Your task to perform on an android device: Add "alienware aurora" to the cart on amazon, then select checkout. Image 0: 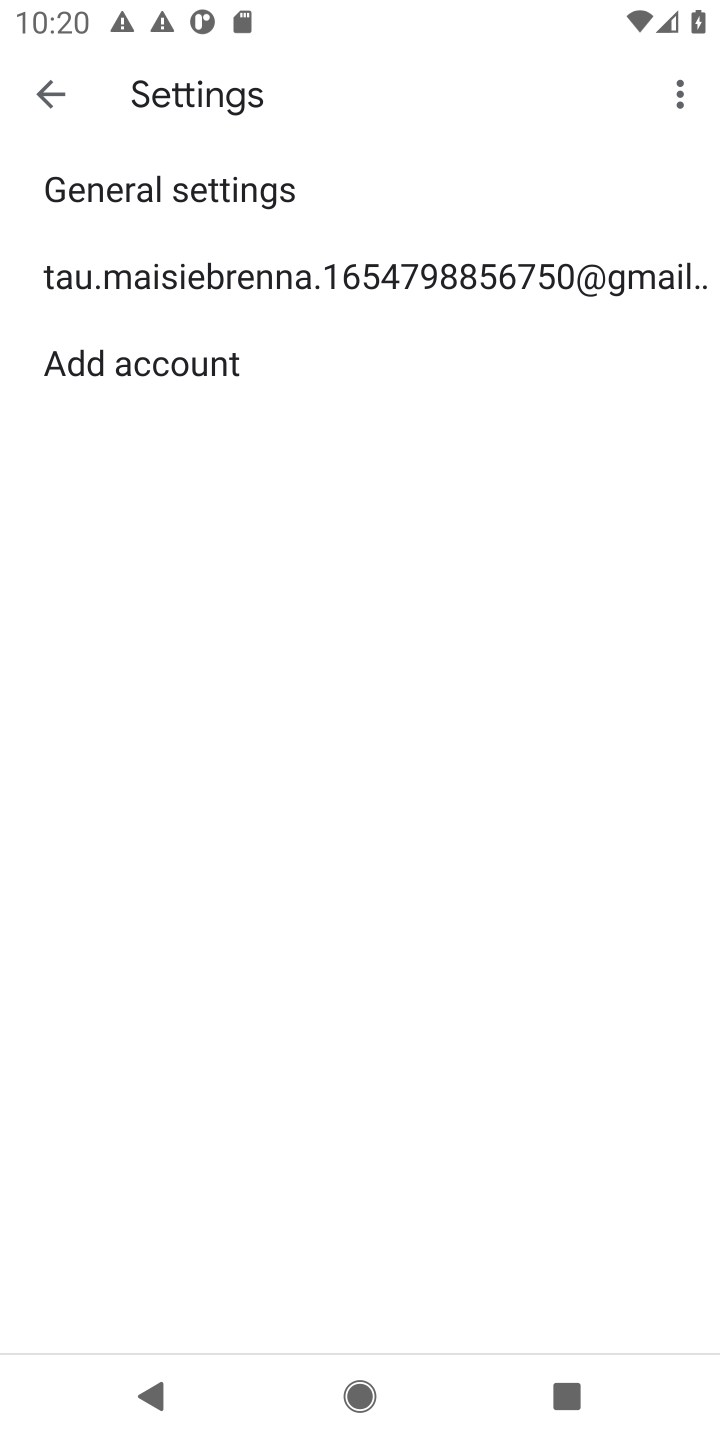
Step 0: press home button
Your task to perform on an android device: Add "alienware aurora" to the cart on amazon, then select checkout. Image 1: 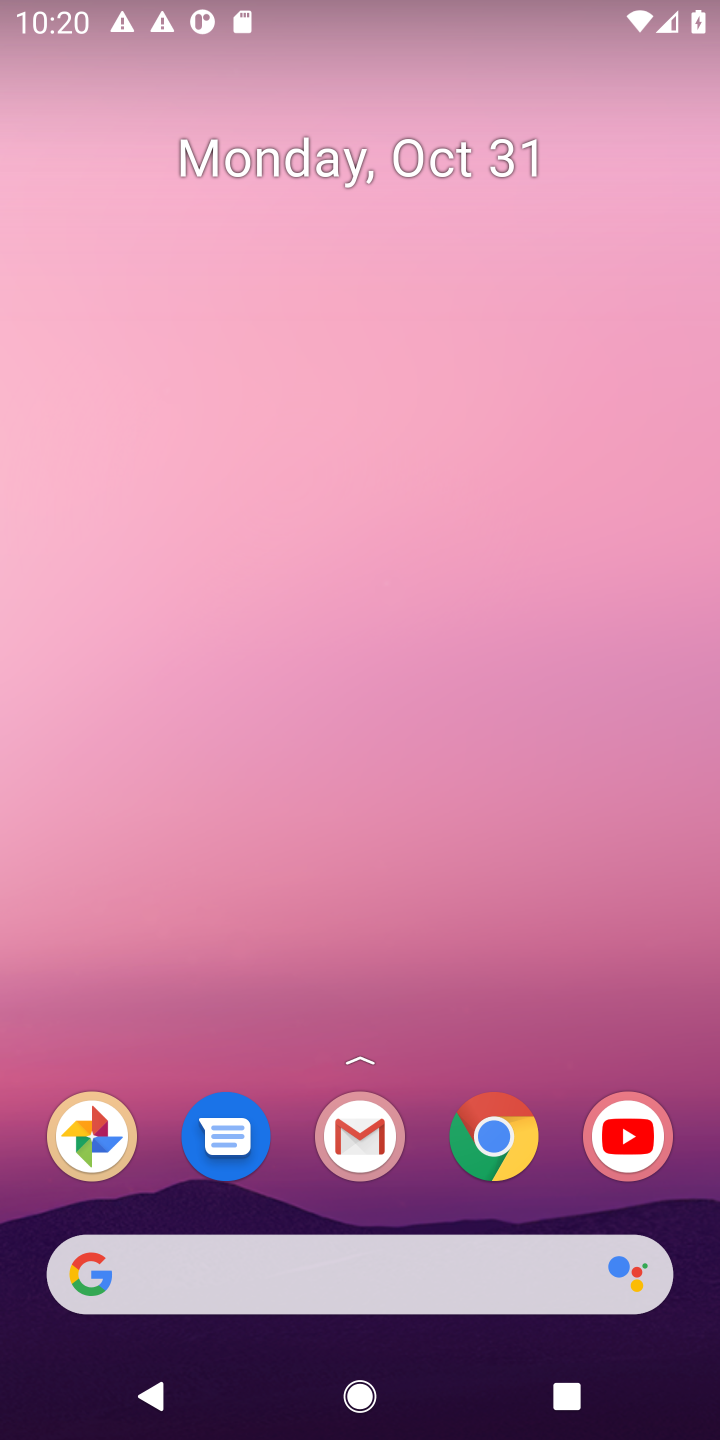
Step 1: click (134, 1277)
Your task to perform on an android device: Add "alienware aurora" to the cart on amazon, then select checkout. Image 2: 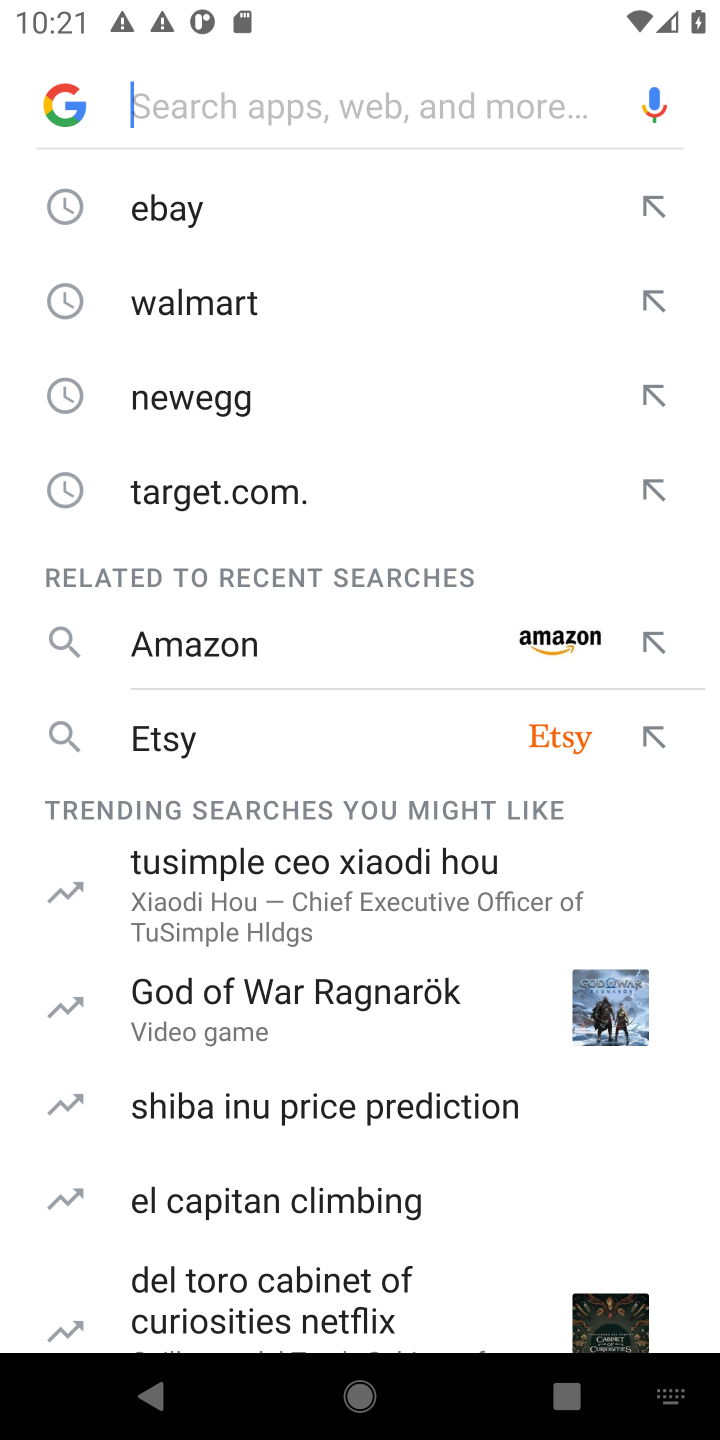
Step 2: type "amazon"
Your task to perform on an android device: Add "alienware aurora" to the cart on amazon, then select checkout. Image 3: 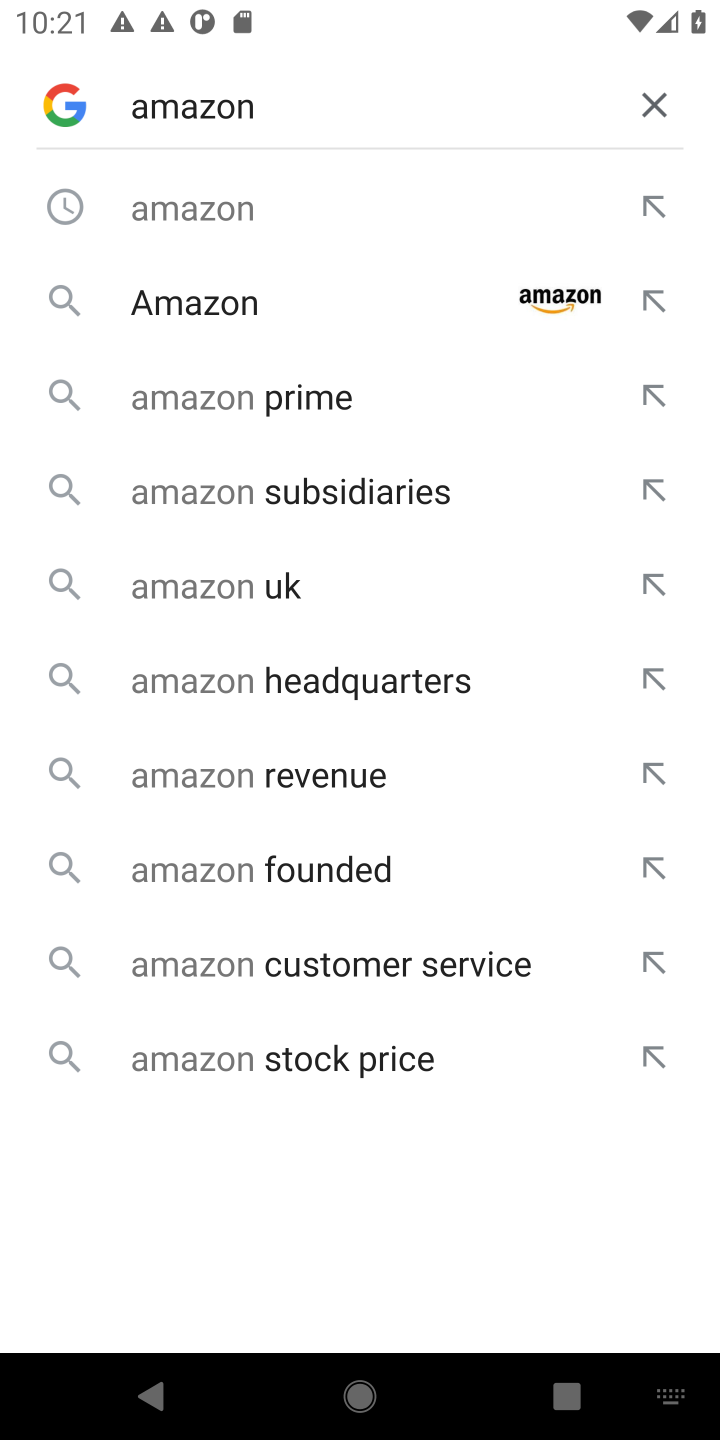
Step 3: press enter
Your task to perform on an android device: Add "alienware aurora" to the cart on amazon, then select checkout. Image 4: 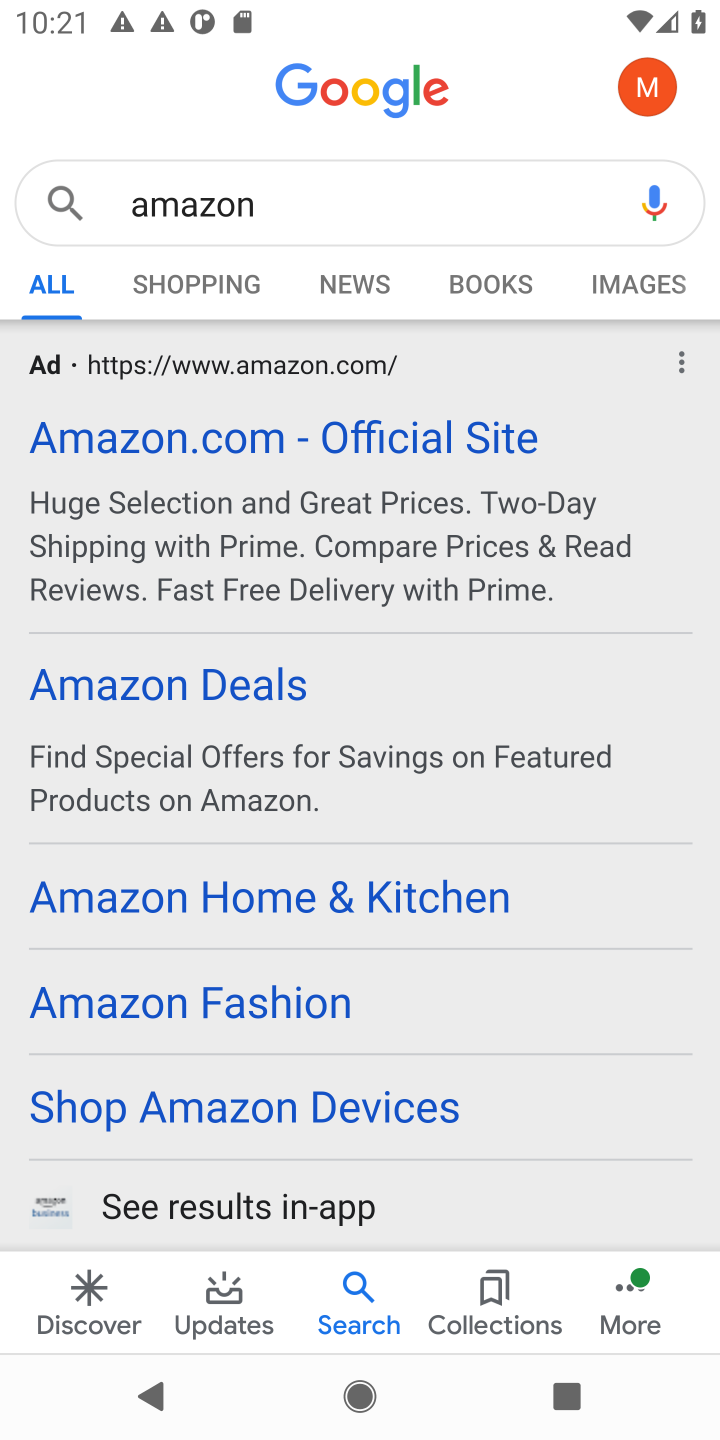
Step 4: click (246, 434)
Your task to perform on an android device: Add "alienware aurora" to the cart on amazon, then select checkout. Image 5: 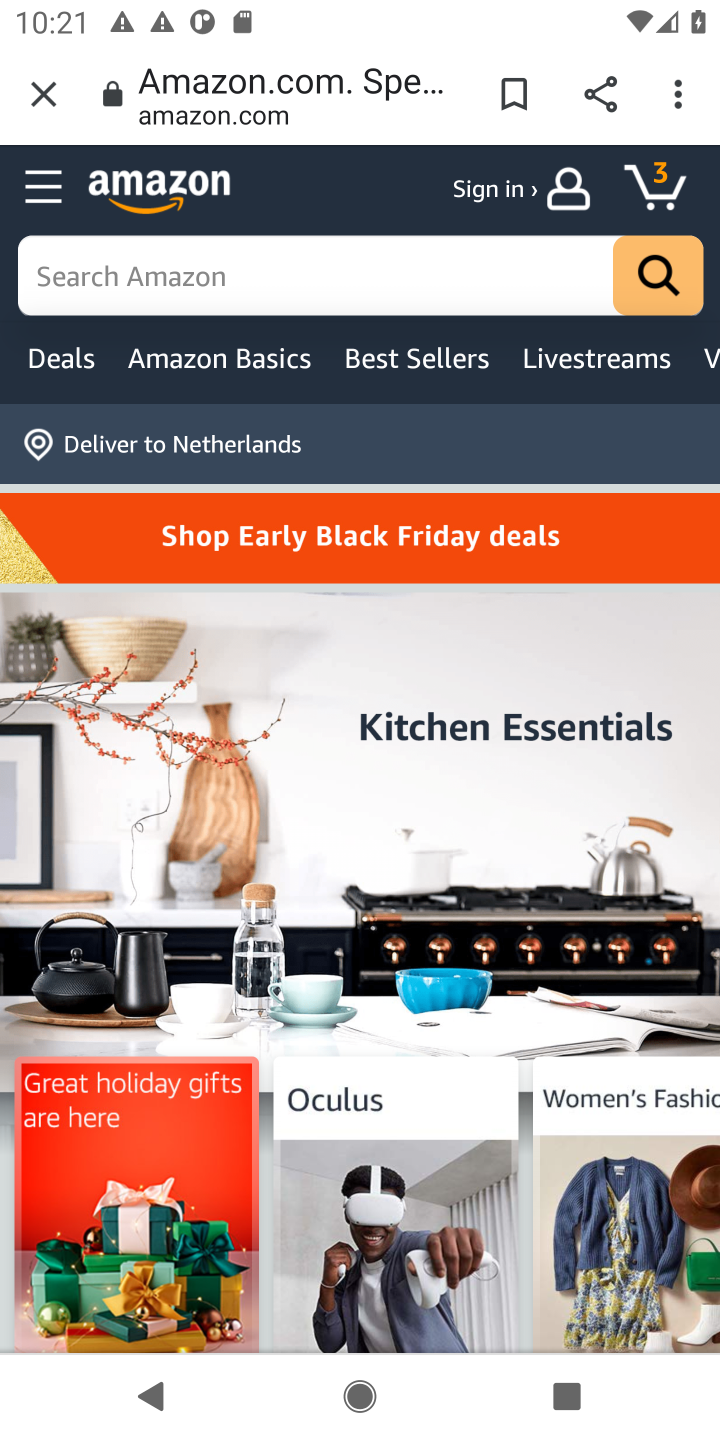
Step 5: click (248, 258)
Your task to perform on an android device: Add "alienware aurora" to the cart on amazon, then select checkout. Image 6: 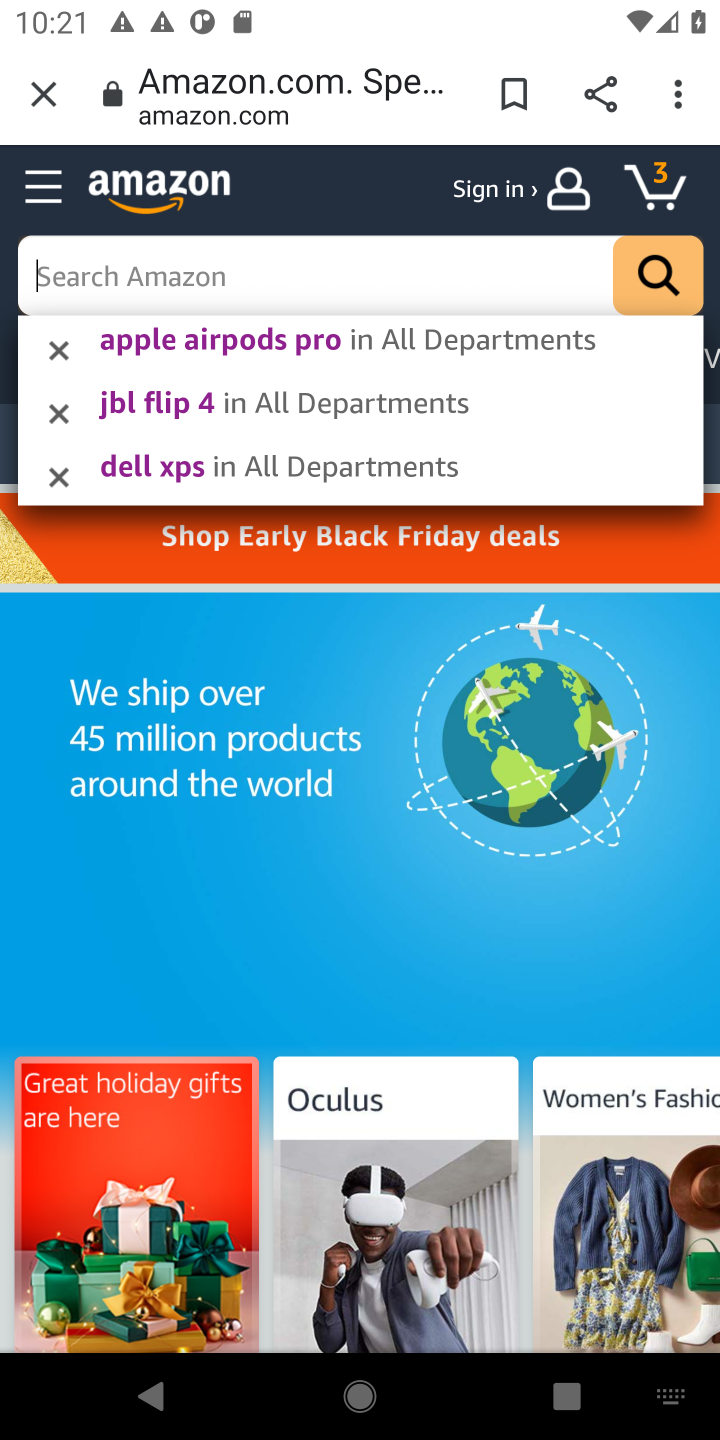
Step 6: type "alienware aurora"
Your task to perform on an android device: Add "alienware aurora" to the cart on amazon, then select checkout. Image 7: 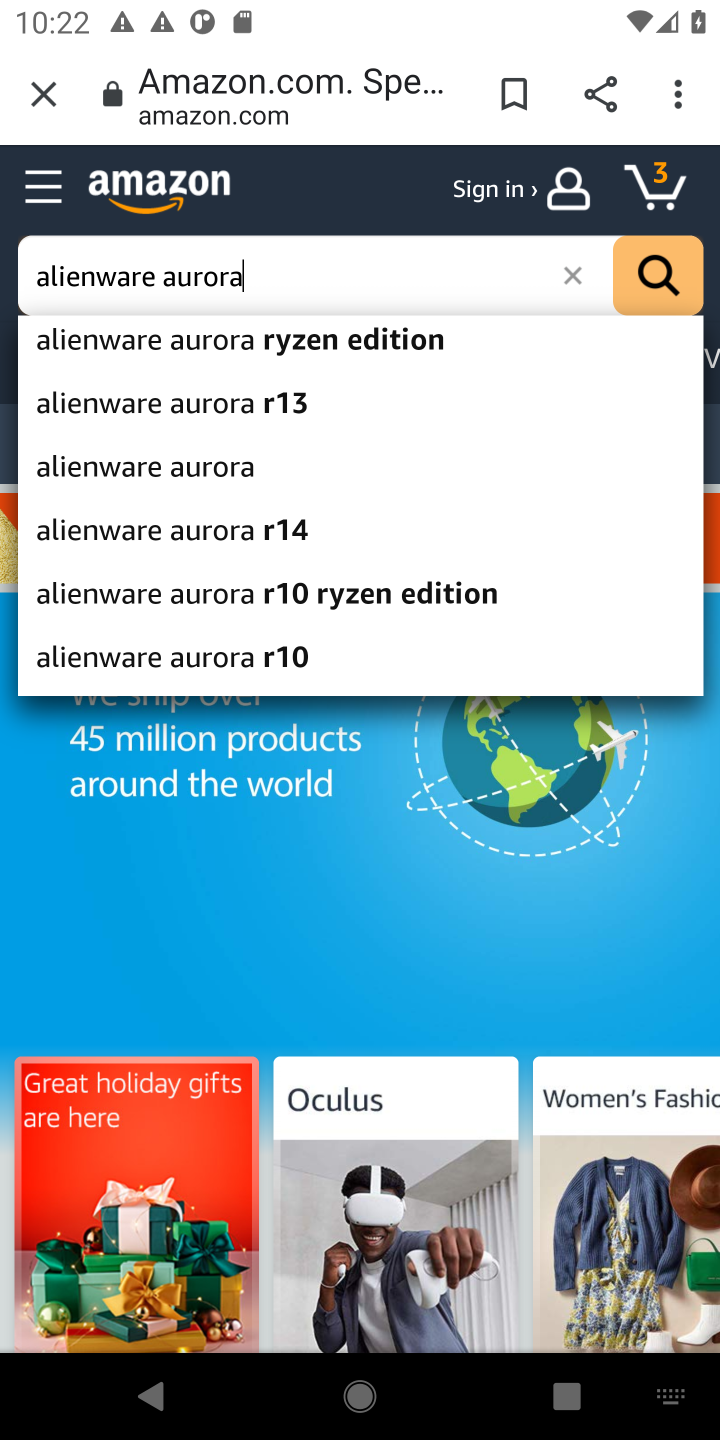
Step 7: click (649, 258)
Your task to perform on an android device: Add "alienware aurora" to the cart on amazon, then select checkout. Image 8: 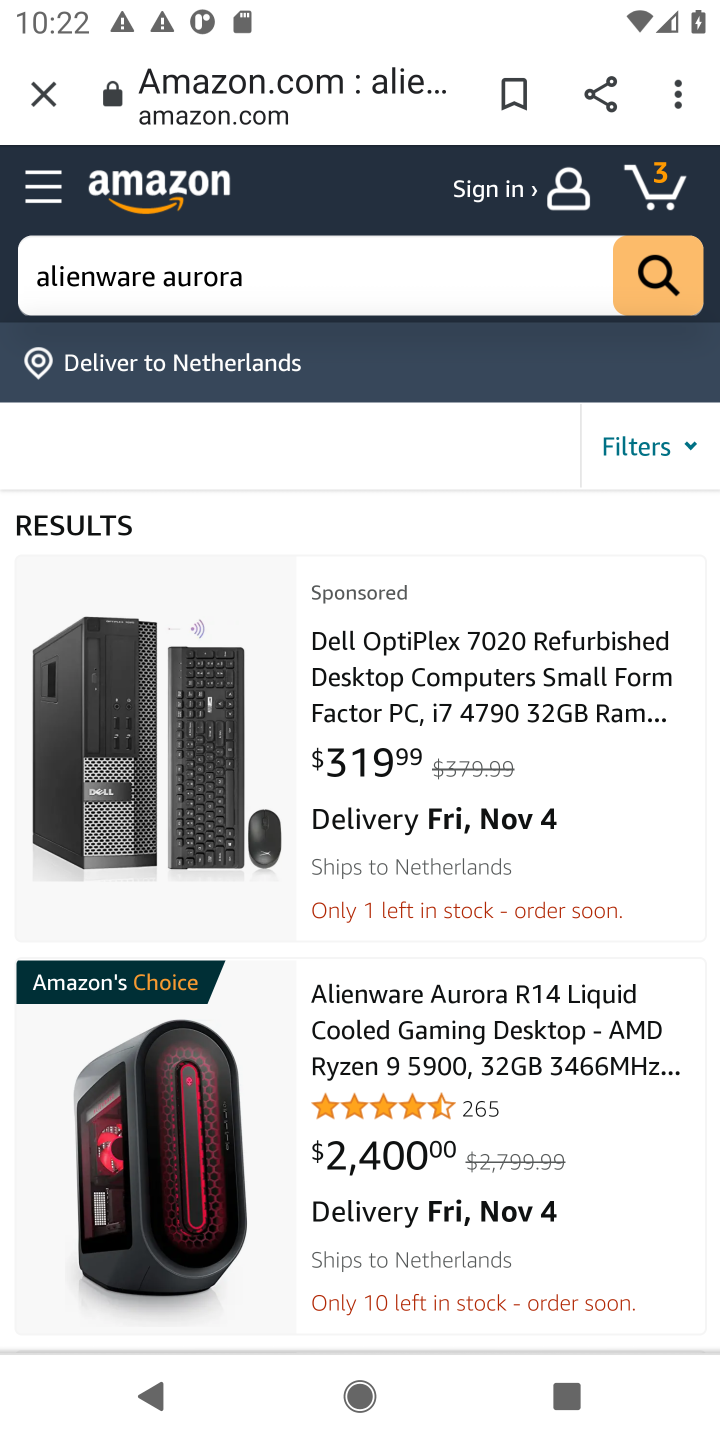
Step 8: click (476, 1008)
Your task to perform on an android device: Add "alienware aurora" to the cart on amazon, then select checkout. Image 9: 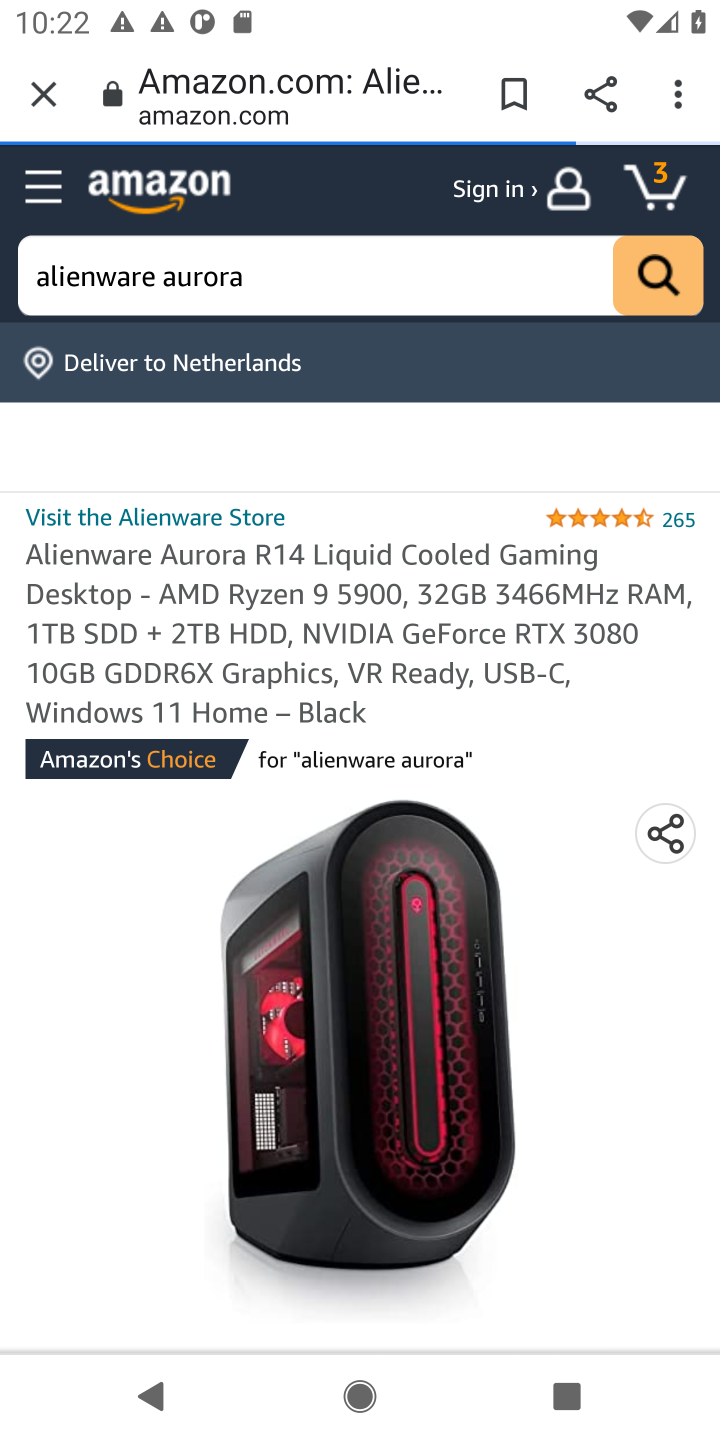
Step 9: drag from (413, 1028) to (409, 582)
Your task to perform on an android device: Add "alienware aurora" to the cart on amazon, then select checkout. Image 10: 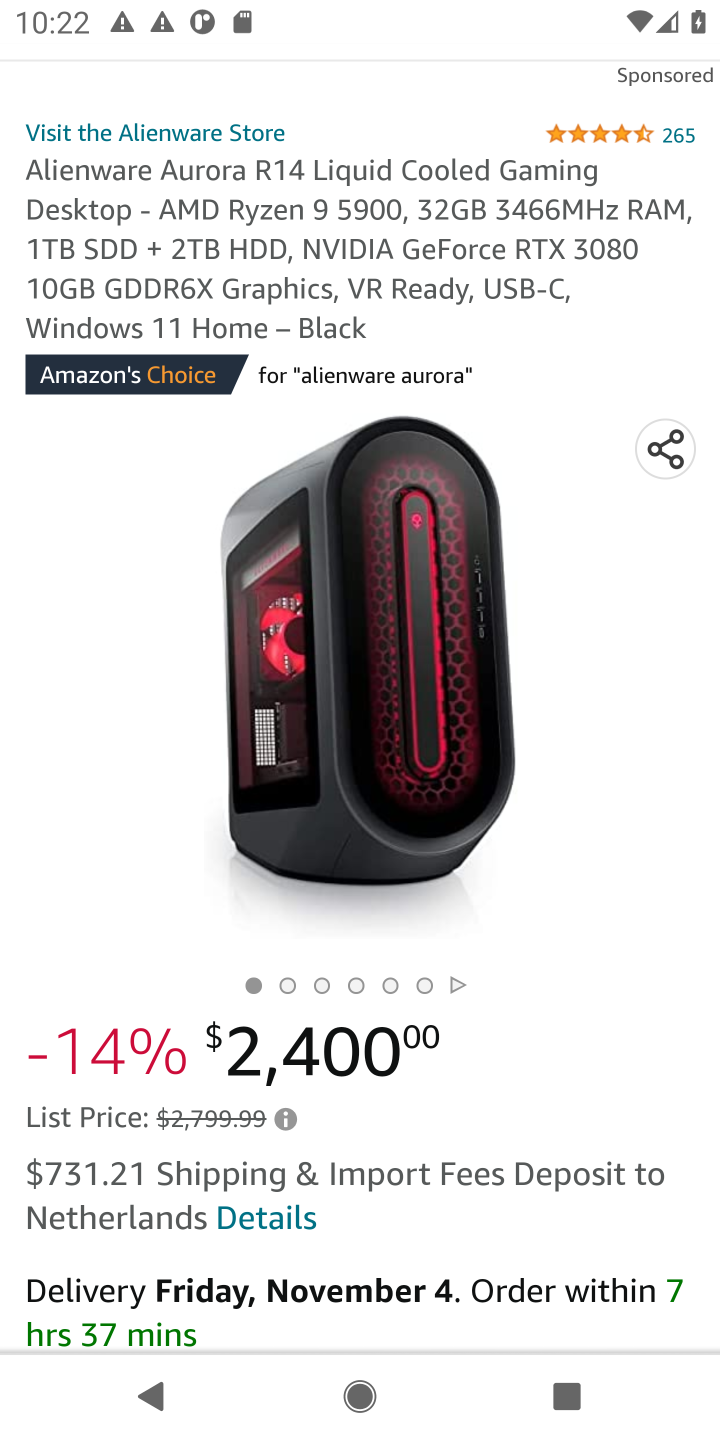
Step 10: drag from (263, 1229) to (269, 462)
Your task to perform on an android device: Add "alienware aurora" to the cart on amazon, then select checkout. Image 11: 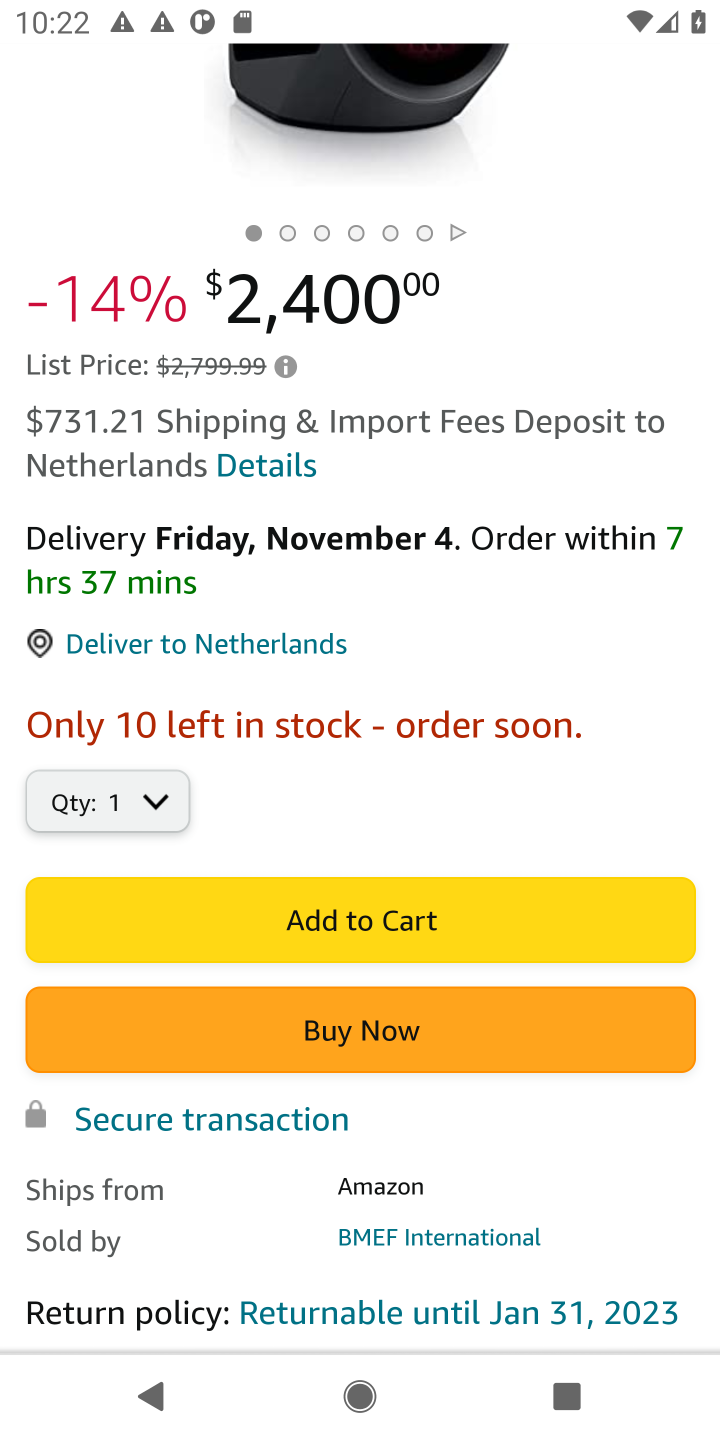
Step 11: click (325, 928)
Your task to perform on an android device: Add "alienware aurora" to the cart on amazon, then select checkout. Image 12: 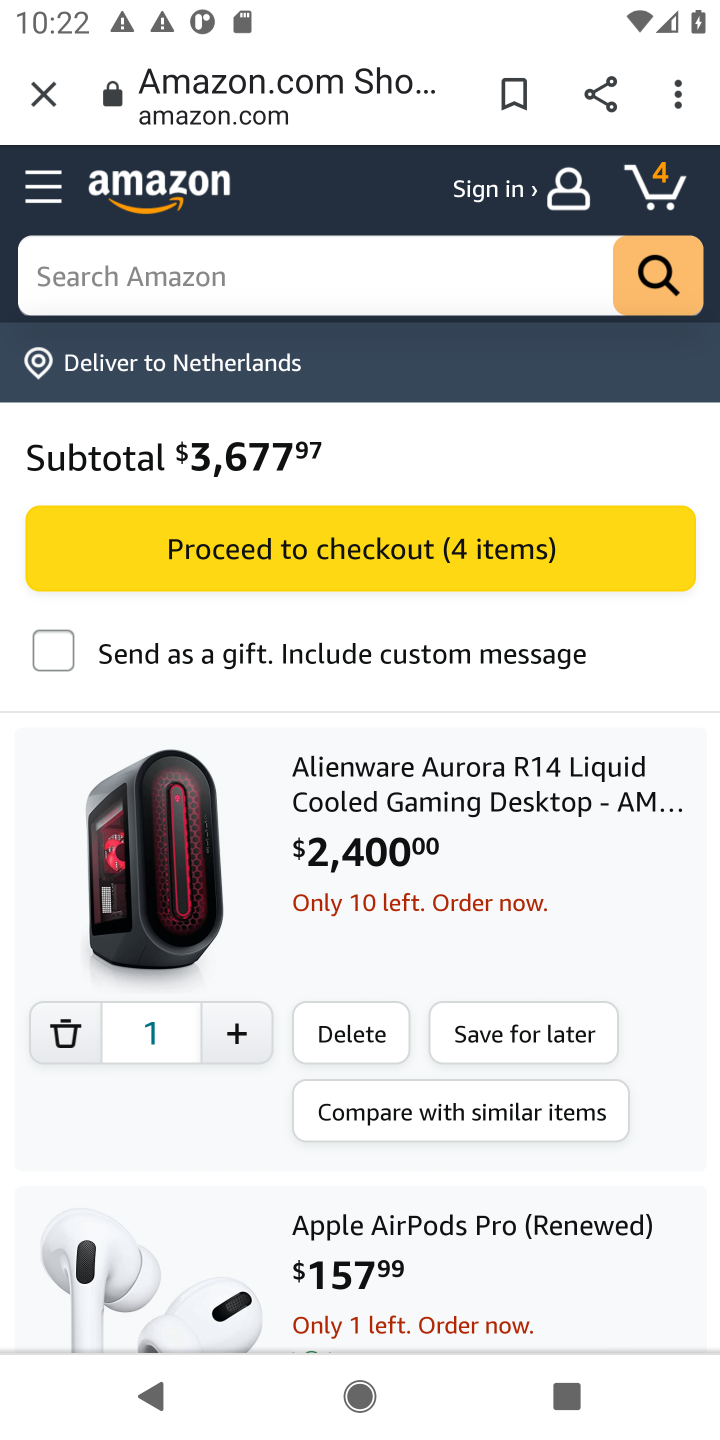
Step 12: click (299, 543)
Your task to perform on an android device: Add "alienware aurora" to the cart on amazon, then select checkout. Image 13: 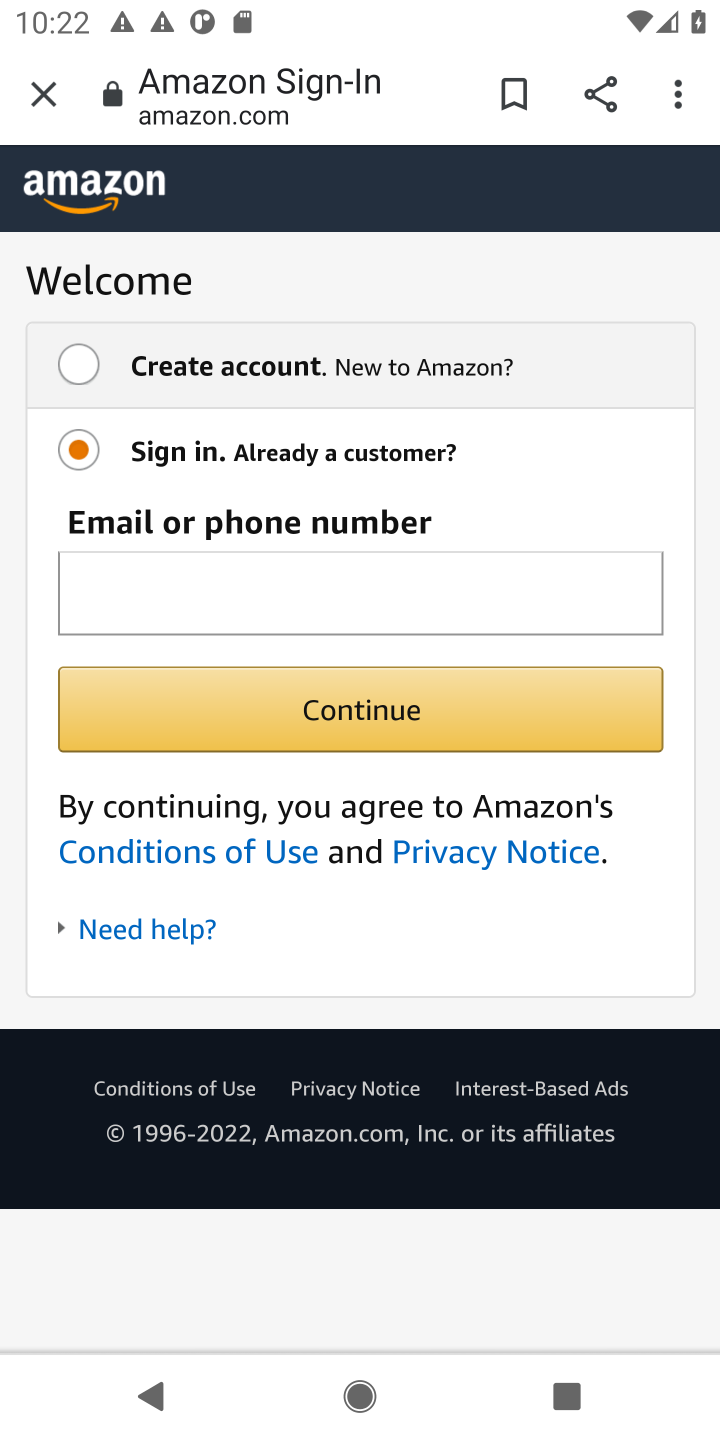
Step 13: task complete